Your task to perform on an android device: Clear the shopping cart on newegg.com. Image 0: 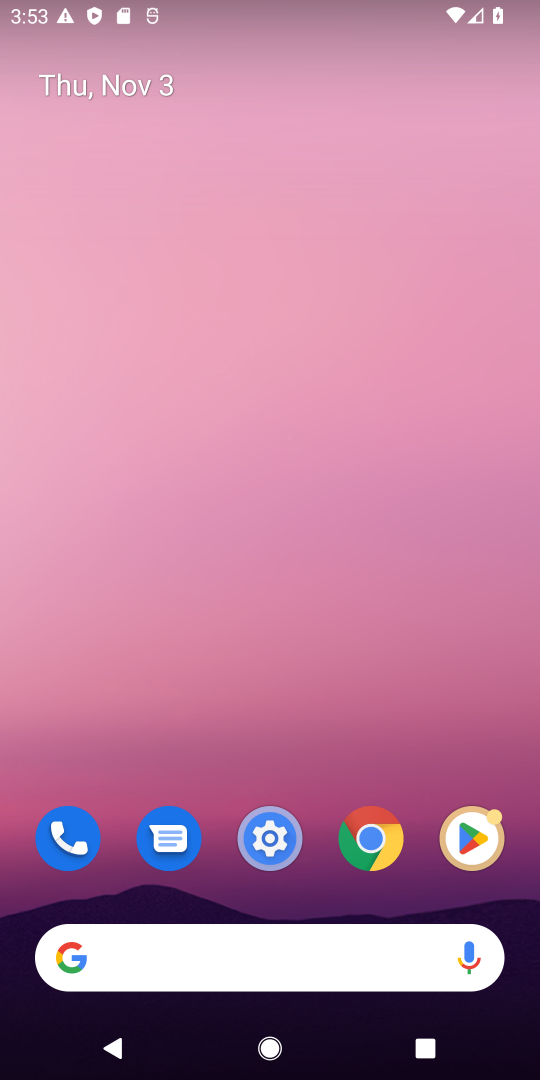
Step 0: drag from (330, 993) to (327, 238)
Your task to perform on an android device: Clear the shopping cart on newegg.com. Image 1: 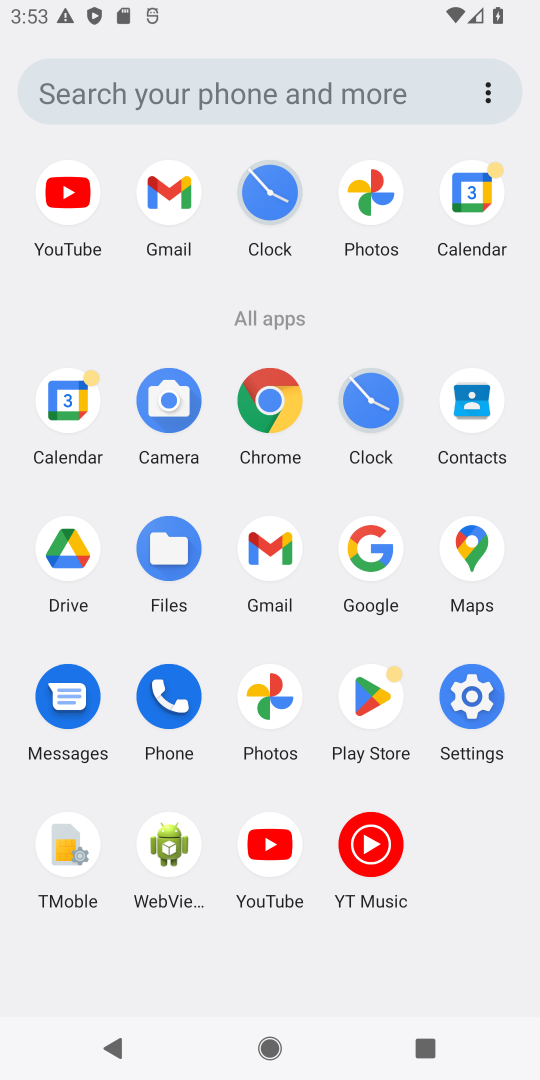
Step 1: click (271, 408)
Your task to perform on an android device: Clear the shopping cart on newegg.com. Image 2: 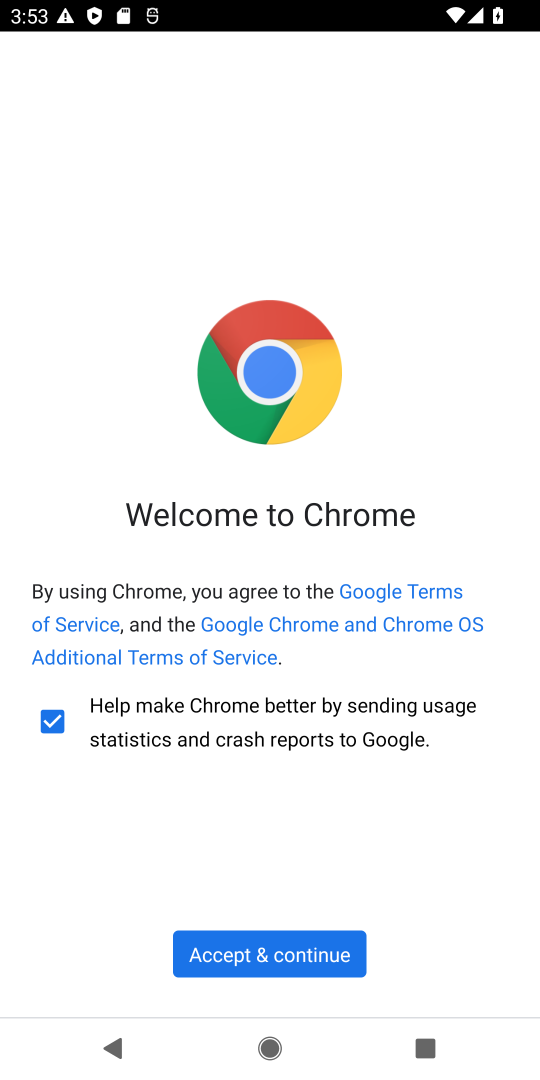
Step 2: click (260, 953)
Your task to perform on an android device: Clear the shopping cart on newegg.com. Image 3: 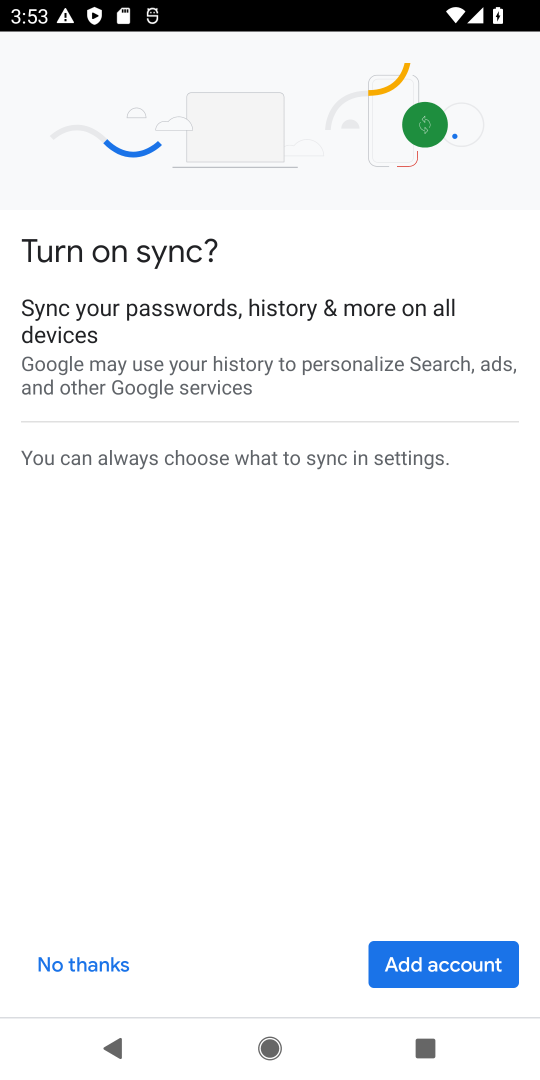
Step 3: click (429, 964)
Your task to perform on an android device: Clear the shopping cart on newegg.com. Image 4: 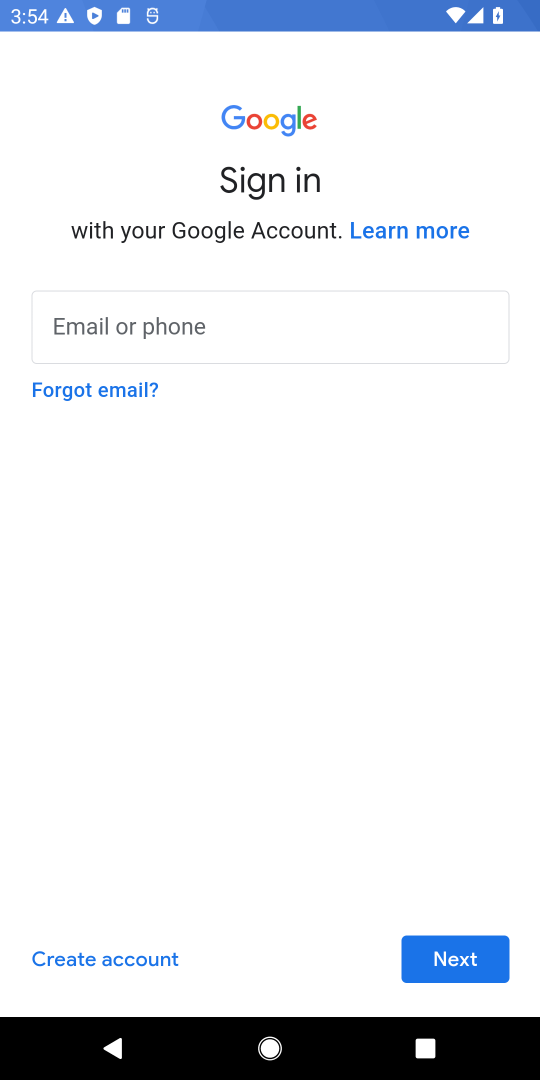
Step 4: click (474, 964)
Your task to perform on an android device: Clear the shopping cart on newegg.com. Image 5: 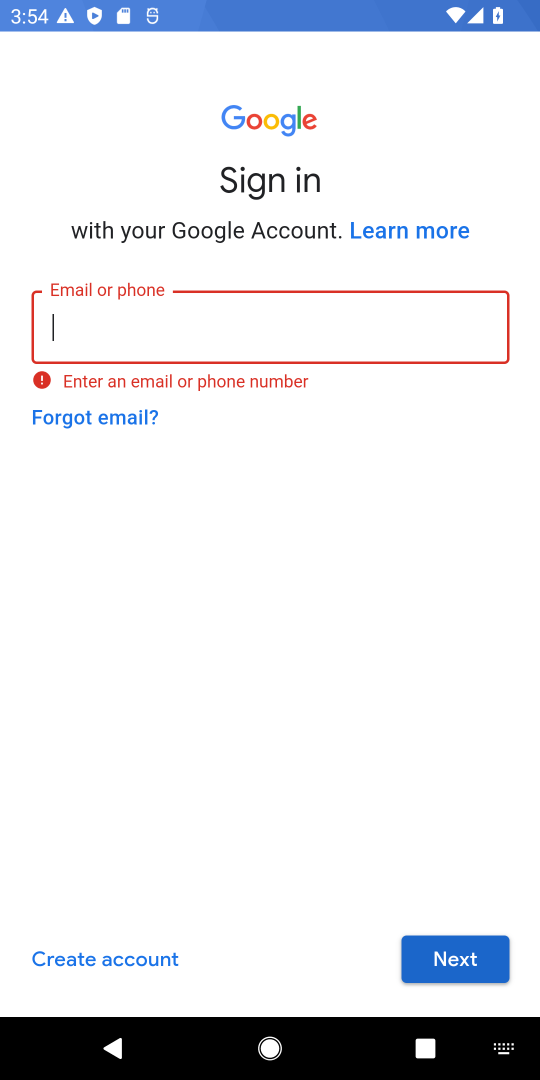
Step 5: task complete